Your task to perform on an android device: How much does the Sony TV cost? Image 0: 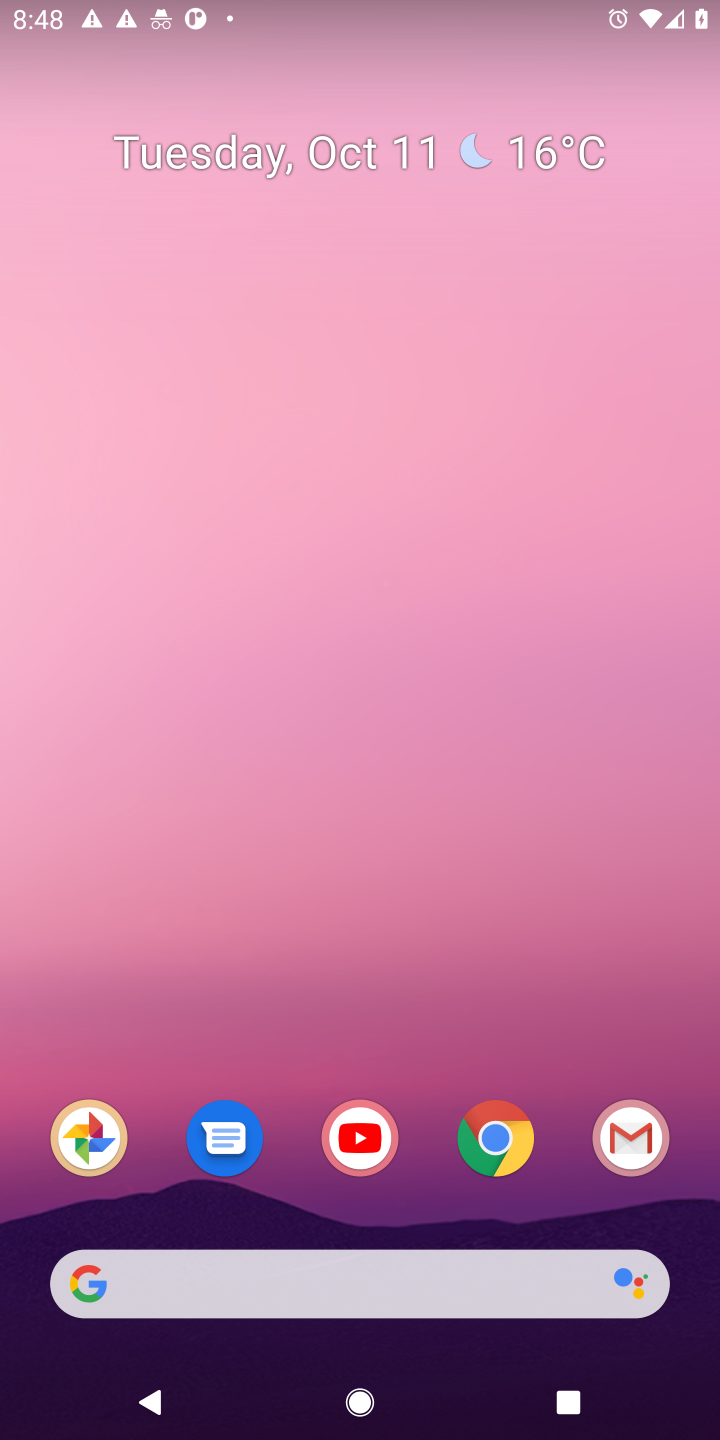
Step 0: click (378, 1273)
Your task to perform on an android device: How much does the Sony TV cost? Image 1: 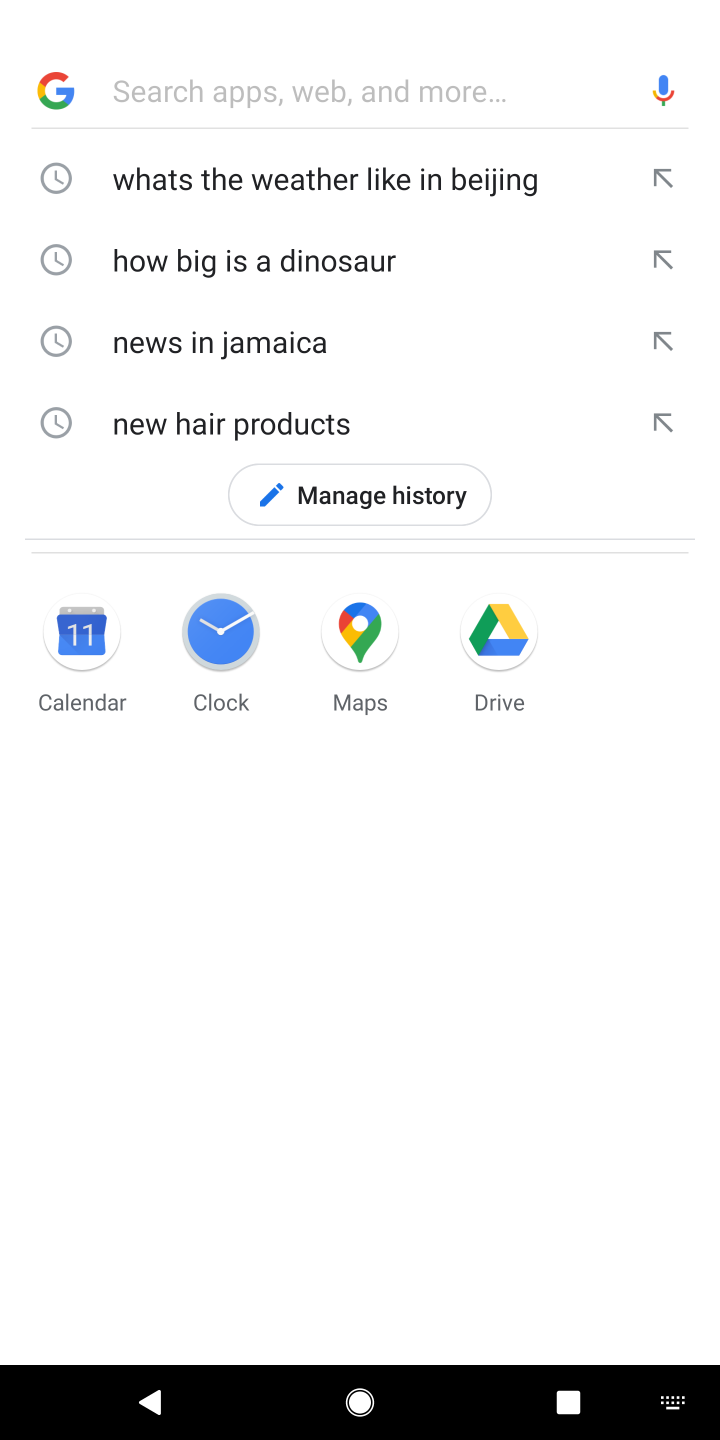
Step 1: type "How much does the Sony TV cost?"
Your task to perform on an android device: How much does the Sony TV cost? Image 2: 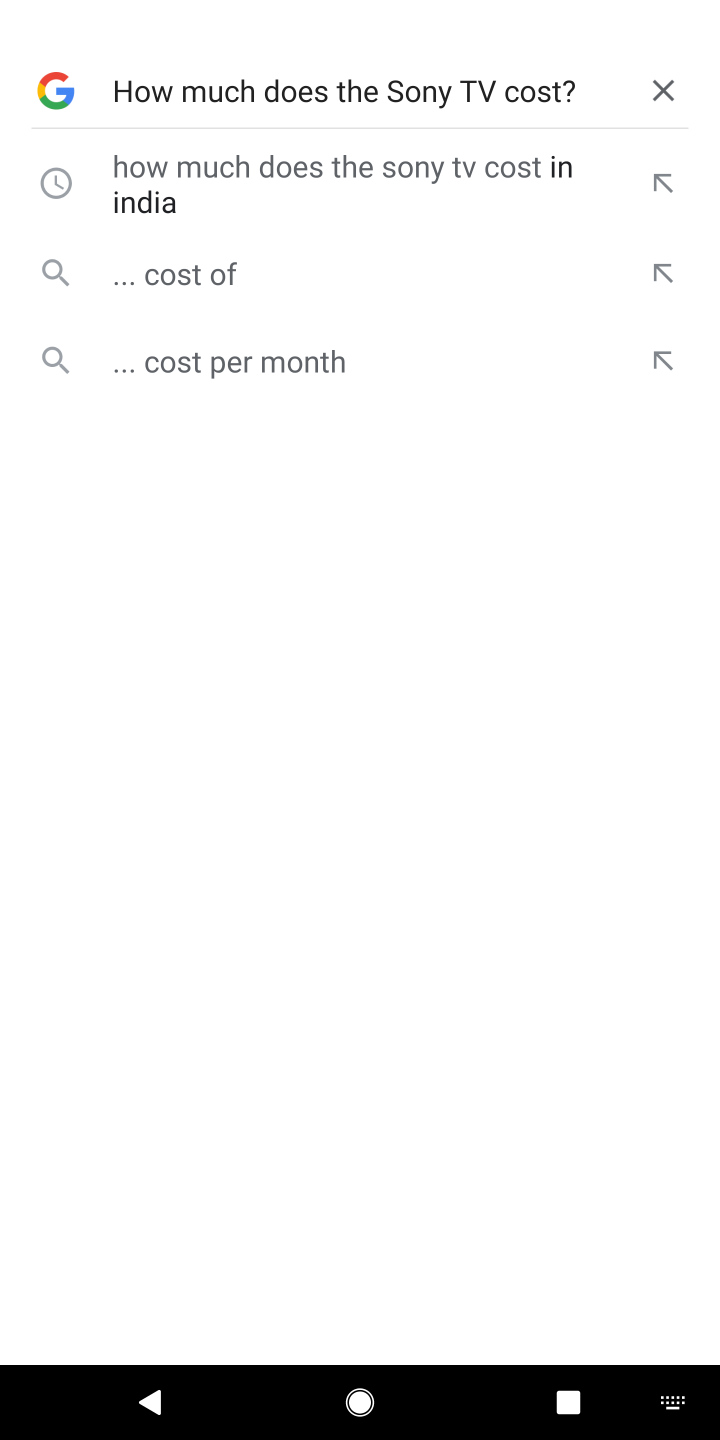
Step 2: click (243, 365)
Your task to perform on an android device: How much does the Sony TV cost? Image 3: 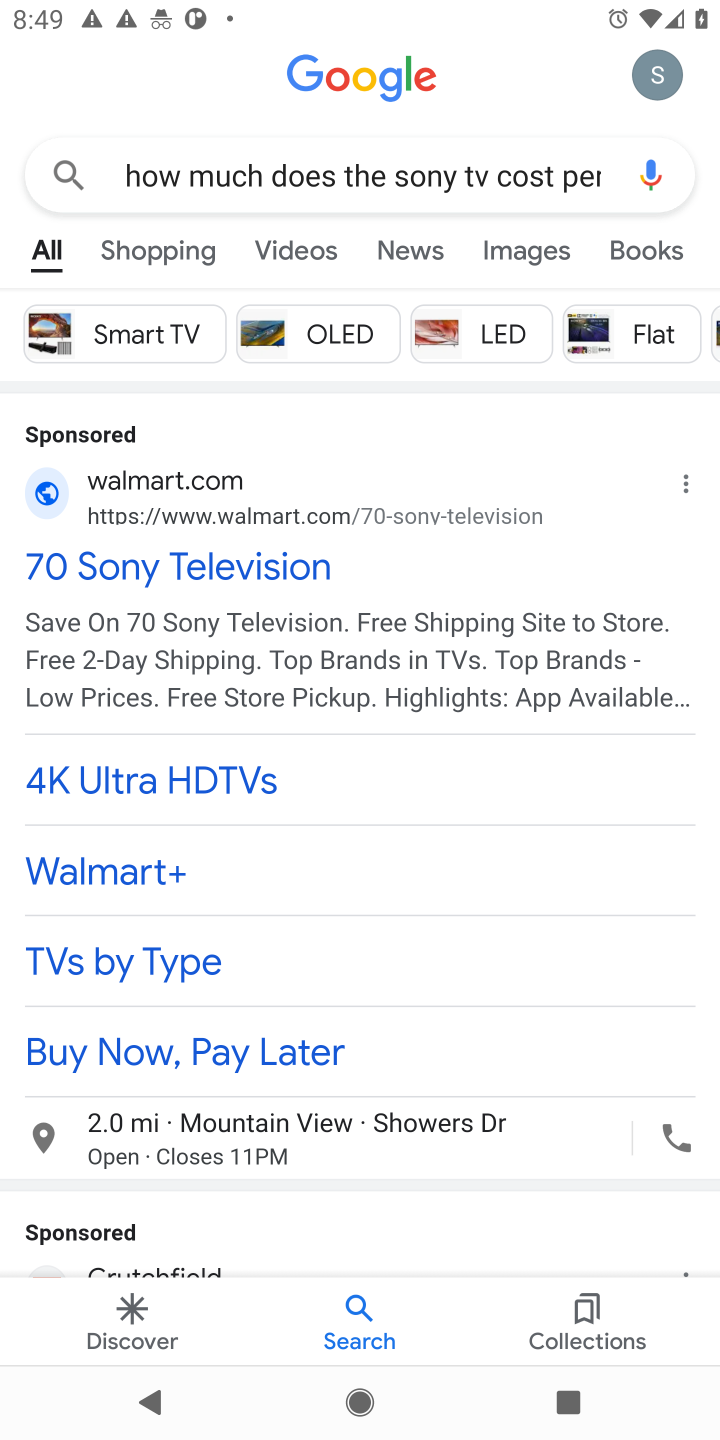
Step 3: click (132, 558)
Your task to perform on an android device: How much does the Sony TV cost? Image 4: 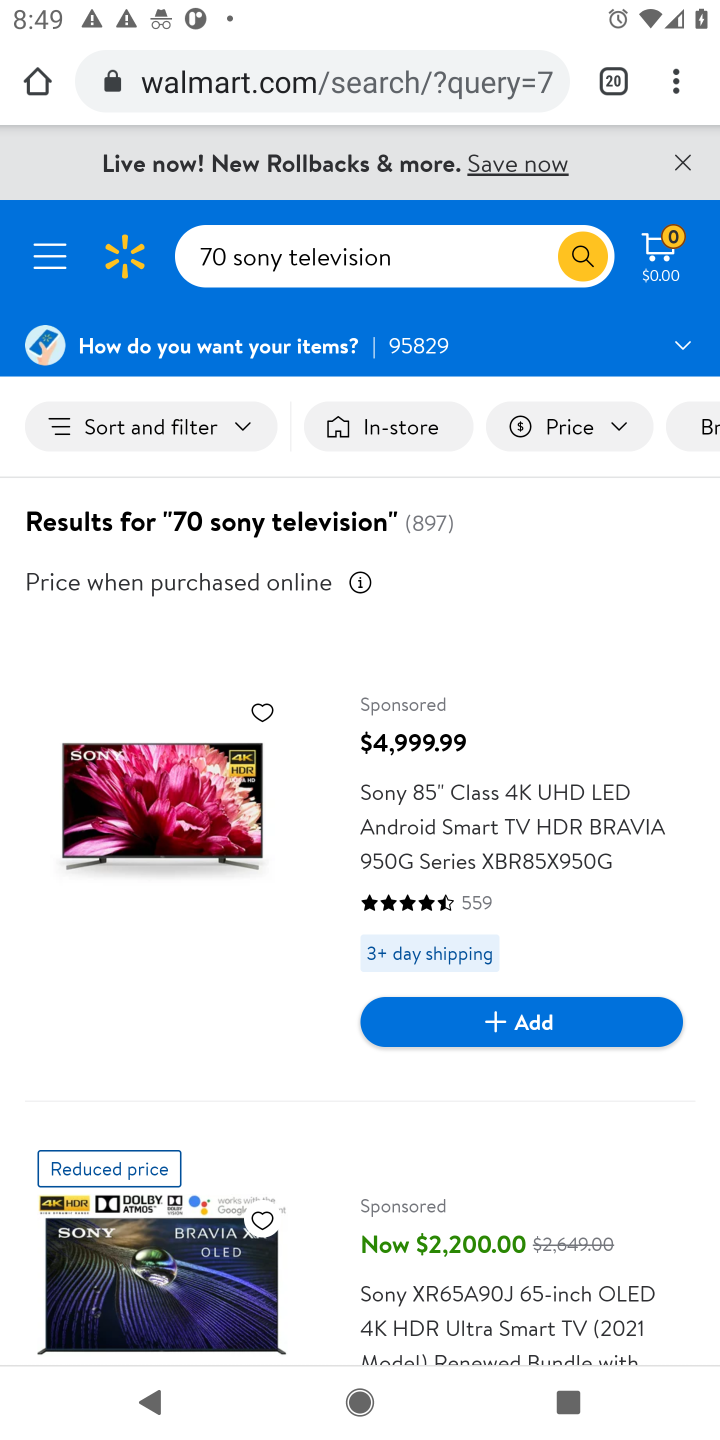
Step 4: task complete